Your task to perform on an android device: Go to Yahoo.com Image 0: 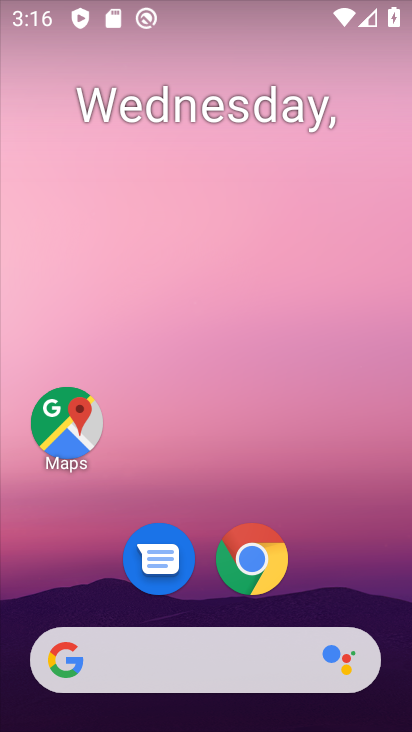
Step 0: click (263, 565)
Your task to perform on an android device: Go to Yahoo.com Image 1: 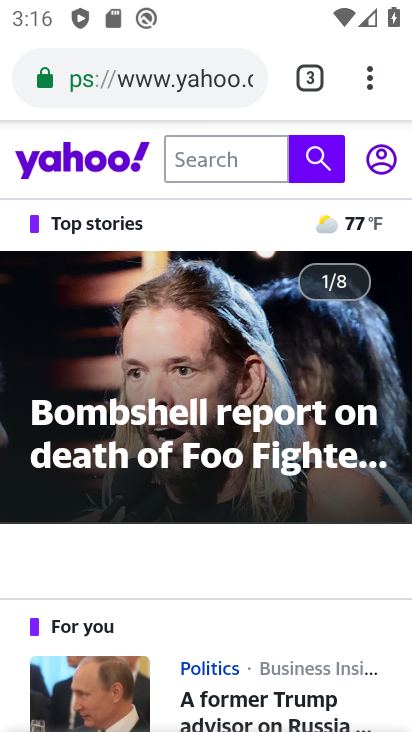
Step 1: task complete